Your task to perform on an android device: find snoozed emails in the gmail app Image 0: 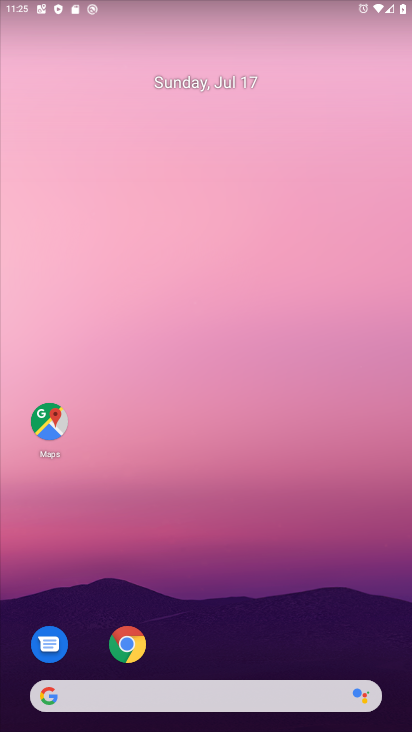
Step 0: drag from (361, 548) to (343, 87)
Your task to perform on an android device: find snoozed emails in the gmail app Image 1: 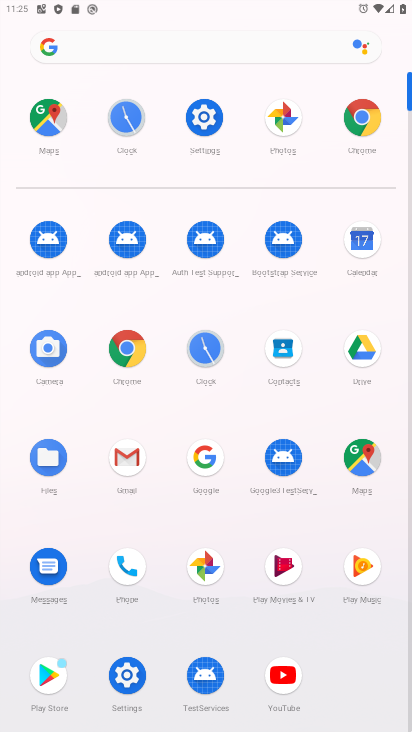
Step 1: click (122, 465)
Your task to perform on an android device: find snoozed emails in the gmail app Image 2: 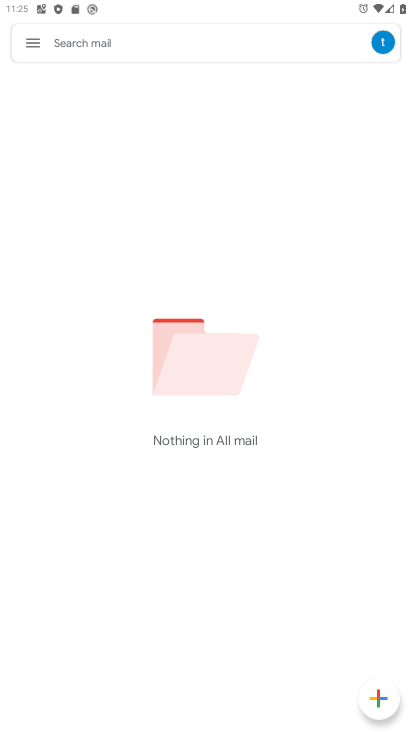
Step 2: click (29, 41)
Your task to perform on an android device: find snoozed emails in the gmail app Image 3: 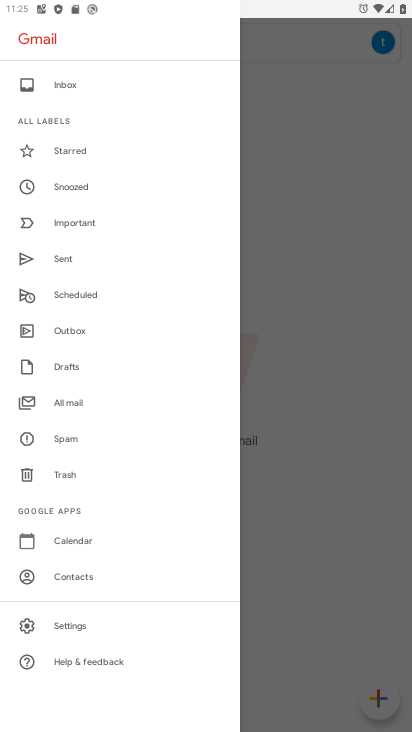
Step 3: click (58, 184)
Your task to perform on an android device: find snoozed emails in the gmail app Image 4: 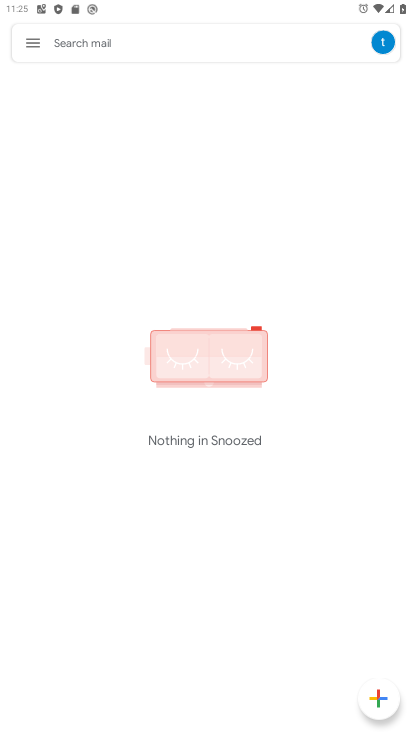
Step 4: task complete